Your task to perform on an android device: Open network settings Image 0: 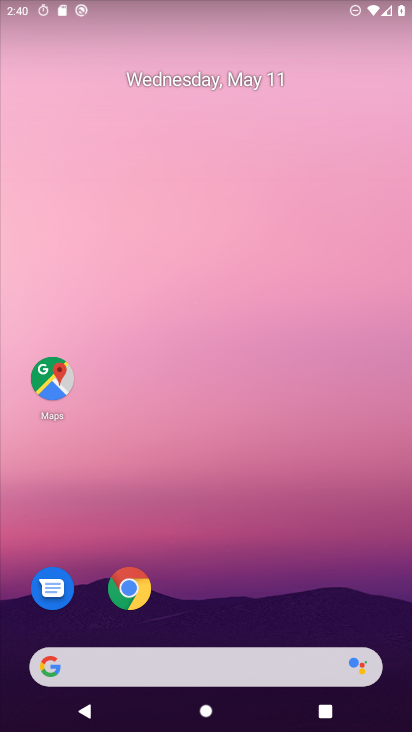
Step 0: drag from (230, 594) to (233, 32)
Your task to perform on an android device: Open network settings Image 1: 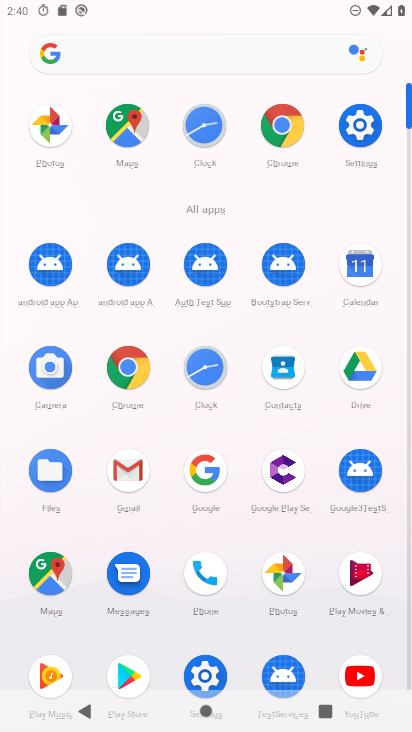
Step 1: click (358, 123)
Your task to perform on an android device: Open network settings Image 2: 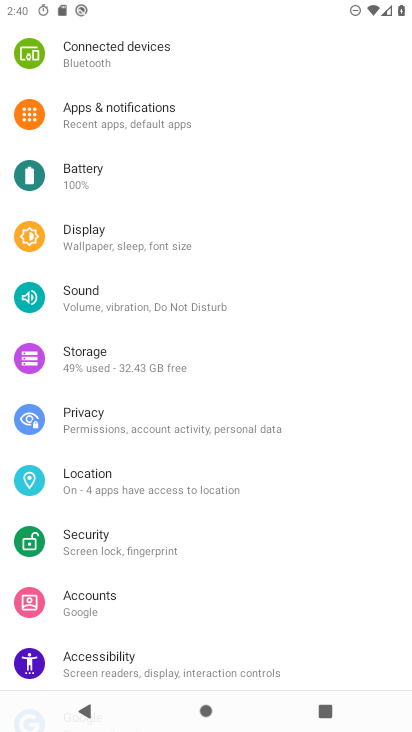
Step 2: drag from (138, 54) to (132, 518)
Your task to perform on an android device: Open network settings Image 3: 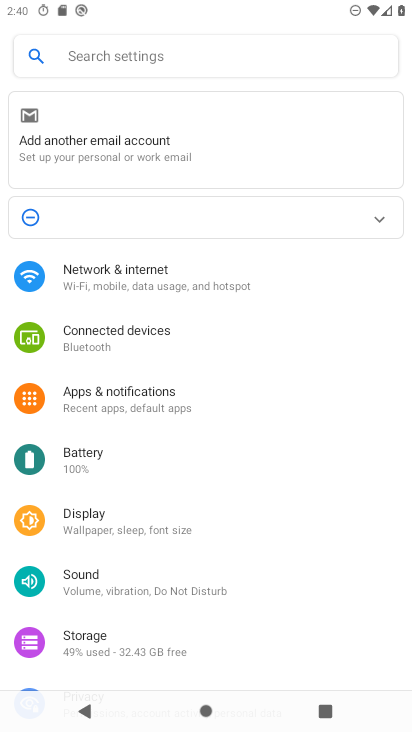
Step 3: click (95, 273)
Your task to perform on an android device: Open network settings Image 4: 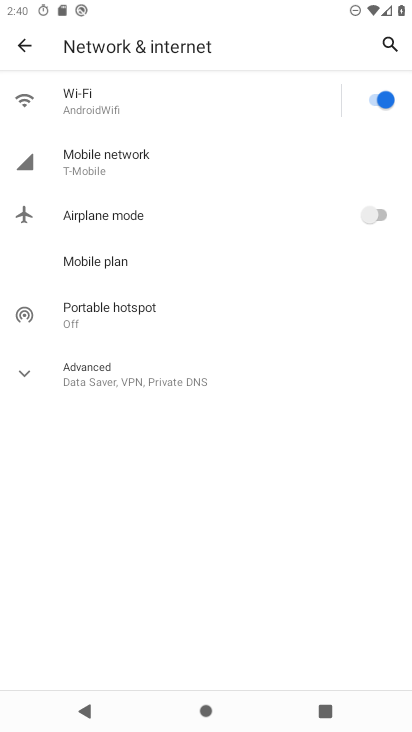
Step 4: task complete